Your task to perform on an android device: change the clock display to show seconds Image 0: 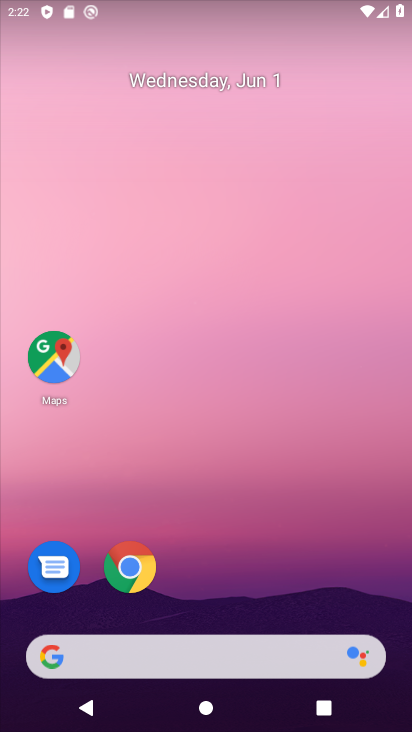
Step 0: drag from (194, 581) to (246, 378)
Your task to perform on an android device: change the clock display to show seconds Image 1: 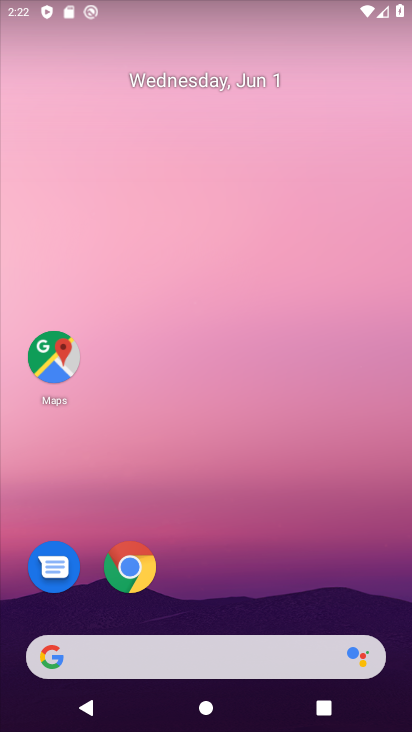
Step 1: drag from (194, 638) to (246, 426)
Your task to perform on an android device: change the clock display to show seconds Image 2: 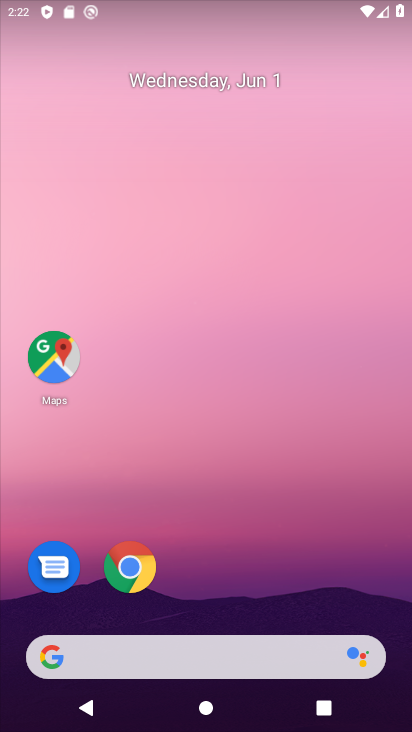
Step 2: drag from (230, 606) to (304, 249)
Your task to perform on an android device: change the clock display to show seconds Image 3: 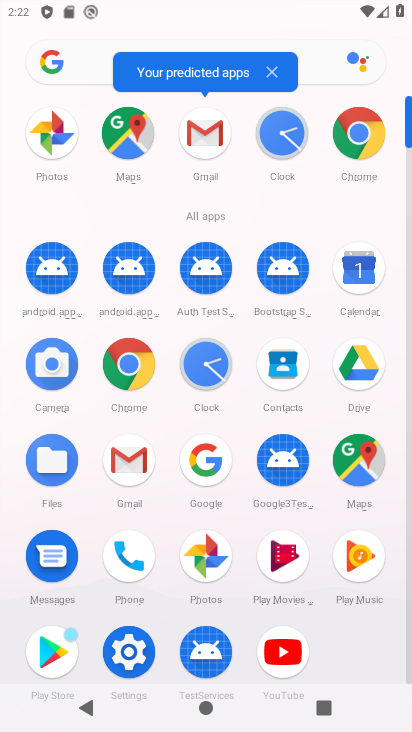
Step 3: click (204, 371)
Your task to perform on an android device: change the clock display to show seconds Image 4: 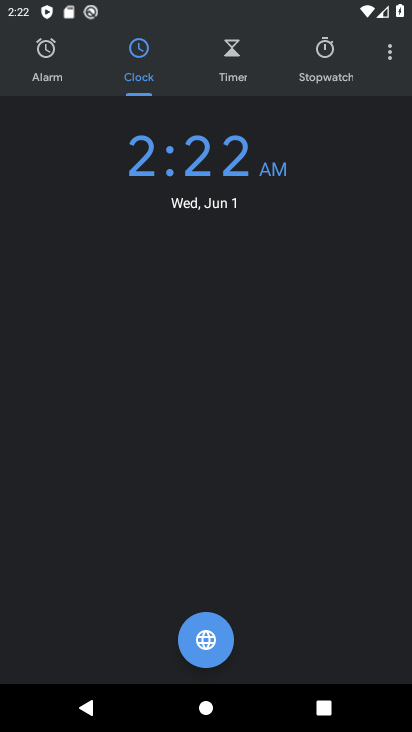
Step 4: click (391, 48)
Your task to perform on an android device: change the clock display to show seconds Image 5: 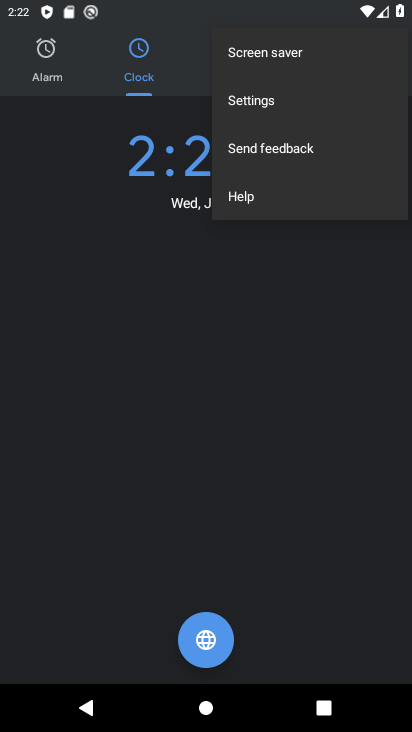
Step 5: click (266, 119)
Your task to perform on an android device: change the clock display to show seconds Image 6: 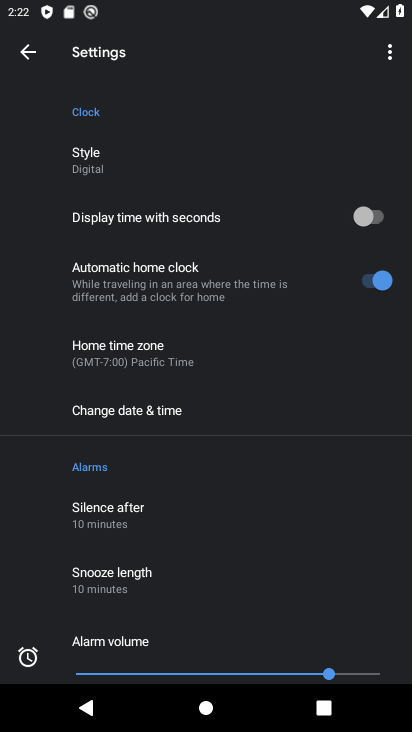
Step 6: click (390, 212)
Your task to perform on an android device: change the clock display to show seconds Image 7: 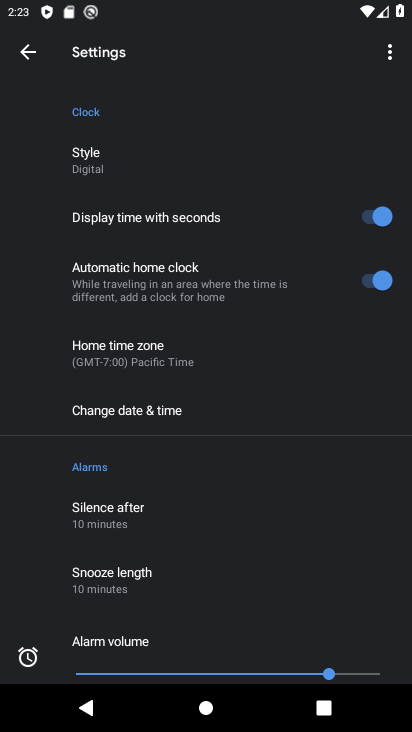
Step 7: task complete